Your task to perform on an android device: toggle wifi Image 0: 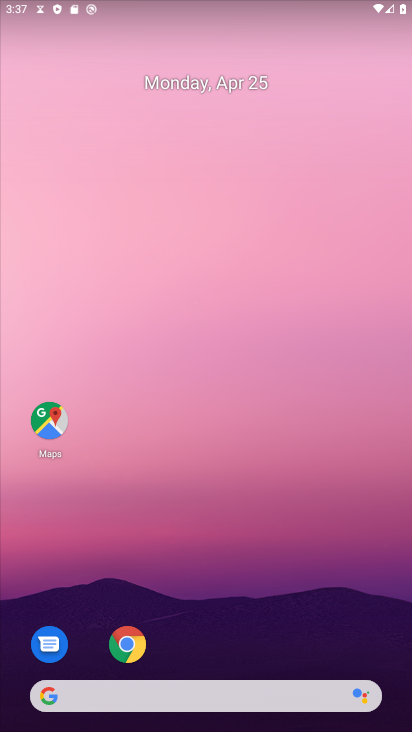
Step 0: drag from (210, 650) to (268, 135)
Your task to perform on an android device: toggle wifi Image 1: 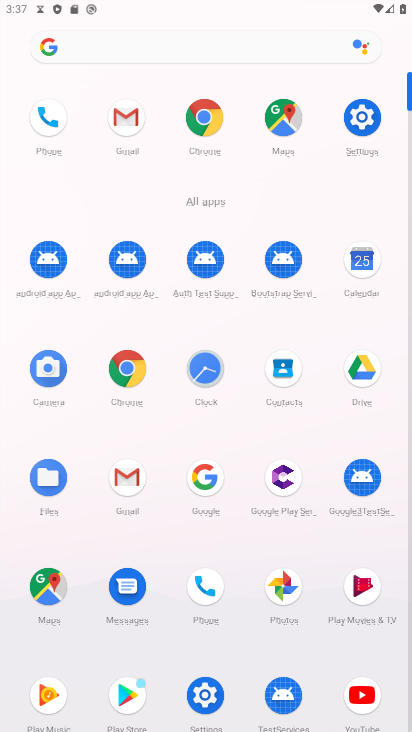
Step 1: click (363, 114)
Your task to perform on an android device: toggle wifi Image 2: 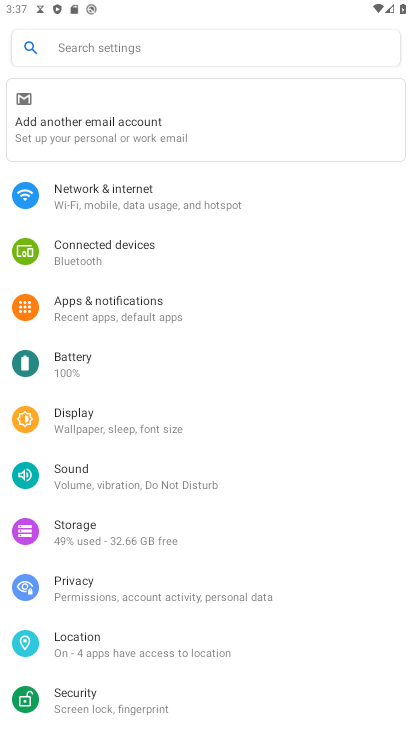
Step 2: click (147, 194)
Your task to perform on an android device: toggle wifi Image 3: 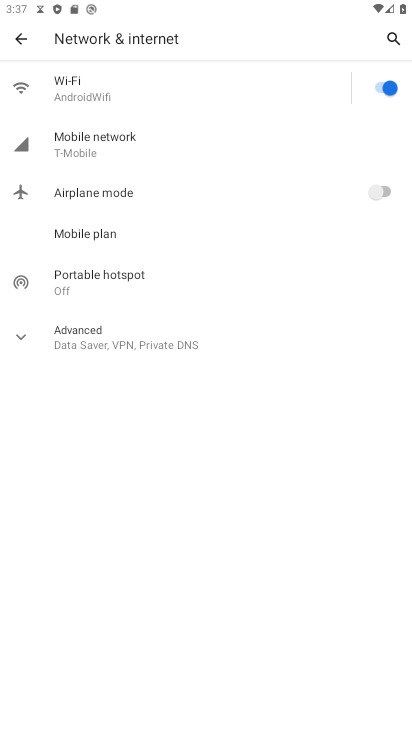
Step 3: click (130, 77)
Your task to perform on an android device: toggle wifi Image 4: 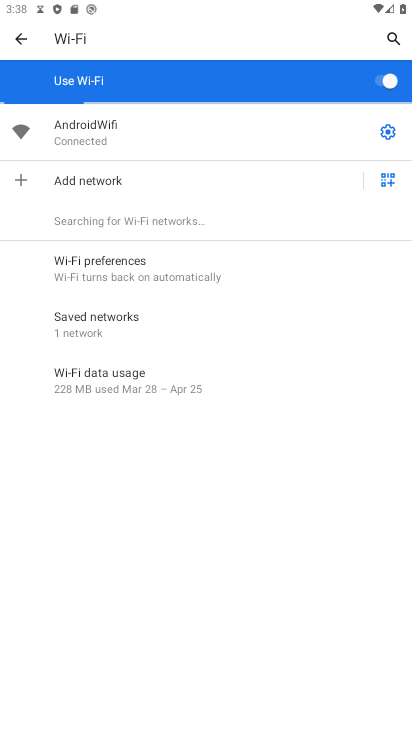
Step 4: click (377, 81)
Your task to perform on an android device: toggle wifi Image 5: 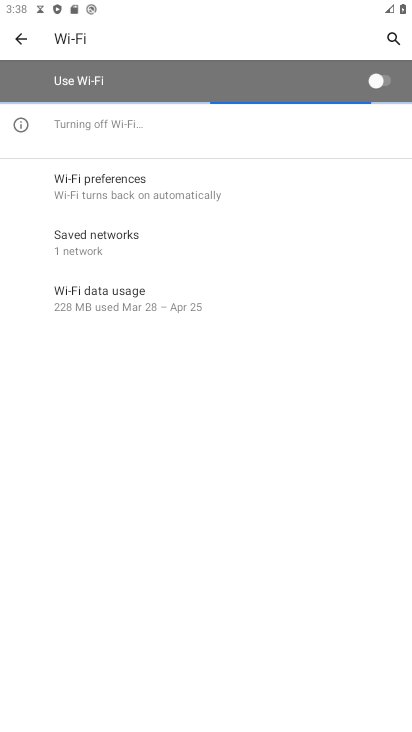
Step 5: task complete